Your task to perform on an android device: turn off airplane mode Image 0: 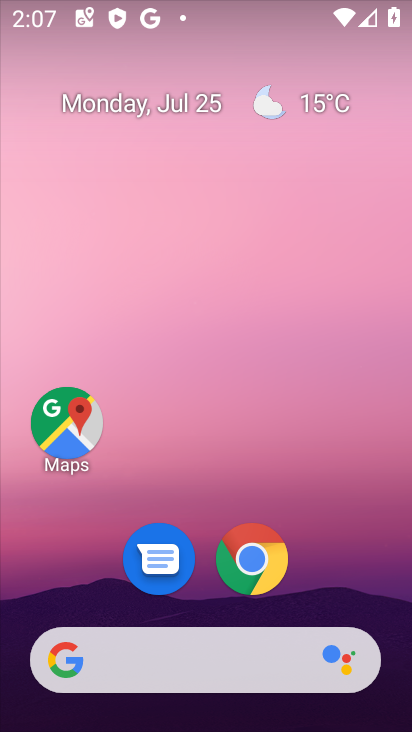
Step 0: drag from (377, 10) to (207, 590)
Your task to perform on an android device: turn off airplane mode Image 1: 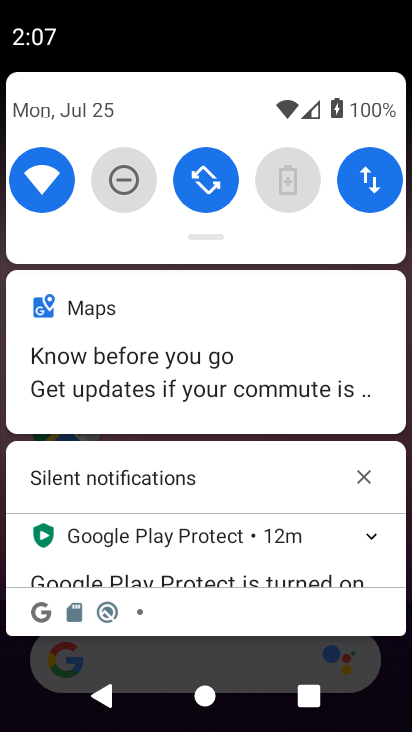
Step 1: task complete